Your task to perform on an android device: Go to display settings Image 0: 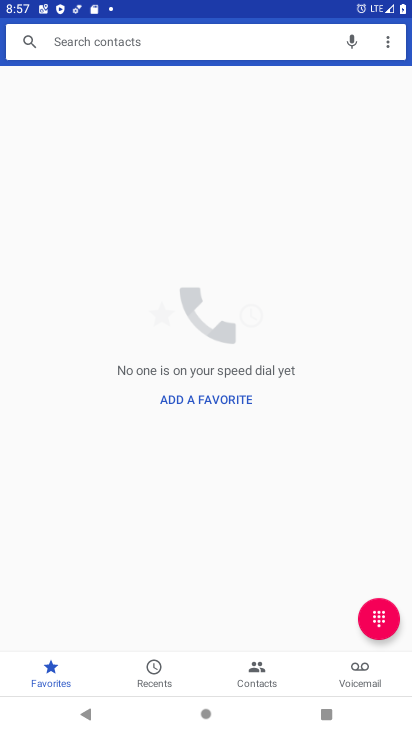
Step 0: press home button
Your task to perform on an android device: Go to display settings Image 1: 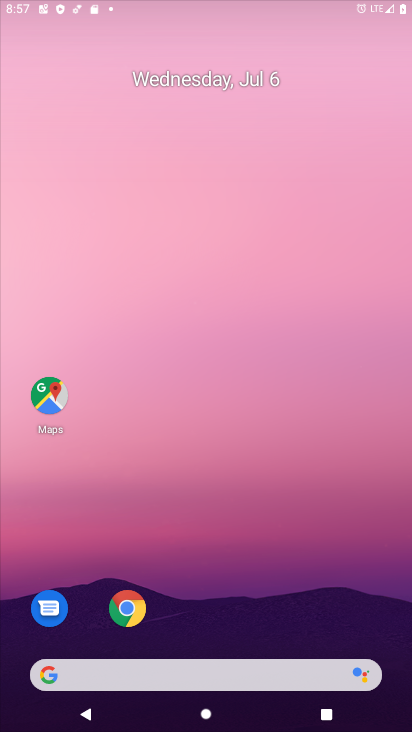
Step 1: drag from (371, 652) to (289, 37)
Your task to perform on an android device: Go to display settings Image 2: 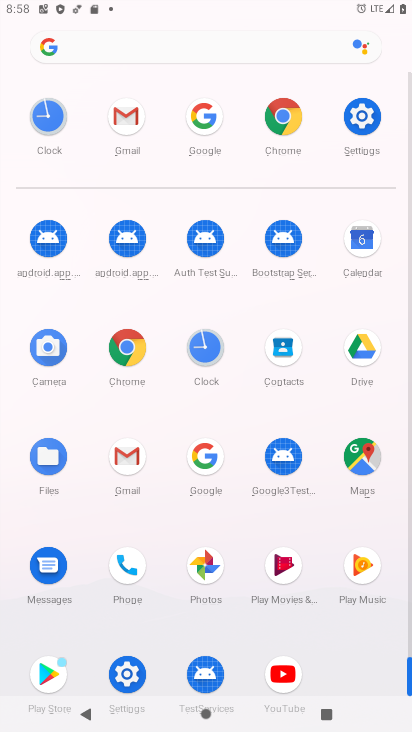
Step 2: click (360, 123)
Your task to perform on an android device: Go to display settings Image 3: 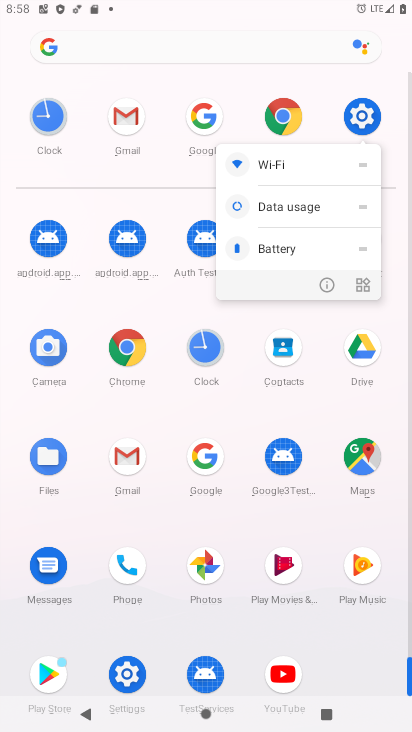
Step 3: click (360, 123)
Your task to perform on an android device: Go to display settings Image 4: 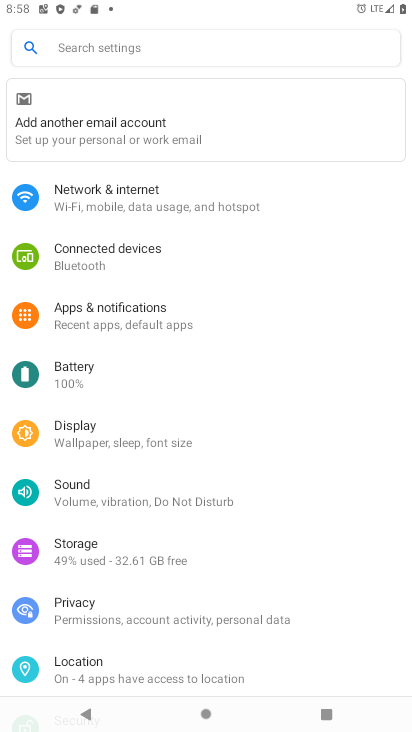
Step 4: click (91, 426)
Your task to perform on an android device: Go to display settings Image 5: 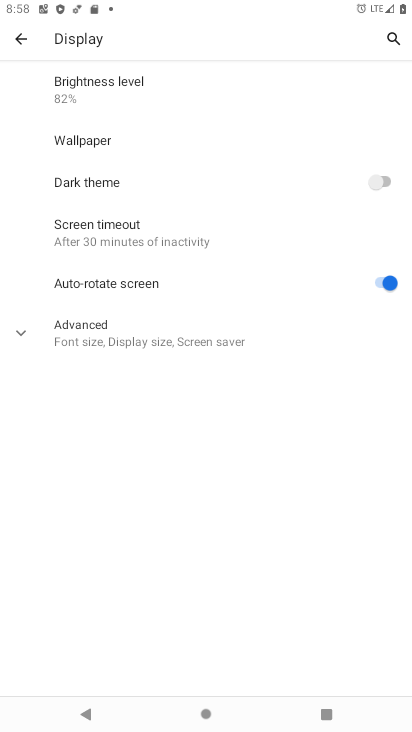
Step 5: task complete